Your task to perform on an android device: Do I have any events tomorrow? Image 0: 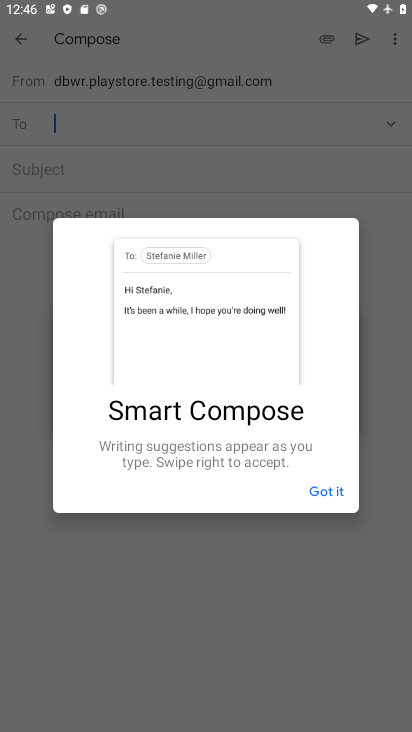
Step 0: press home button
Your task to perform on an android device: Do I have any events tomorrow? Image 1: 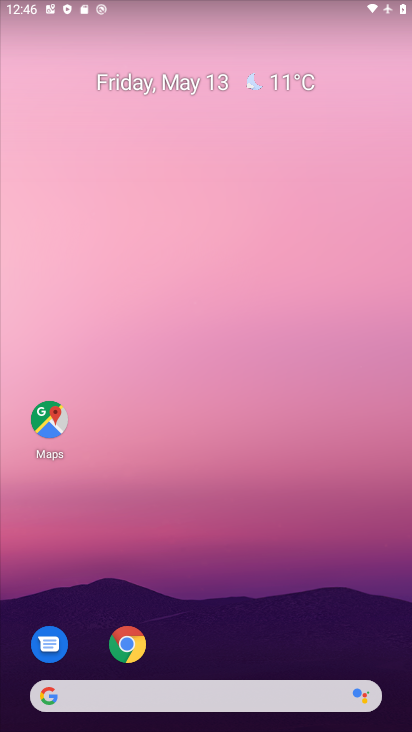
Step 1: drag from (214, 671) to (209, 256)
Your task to perform on an android device: Do I have any events tomorrow? Image 2: 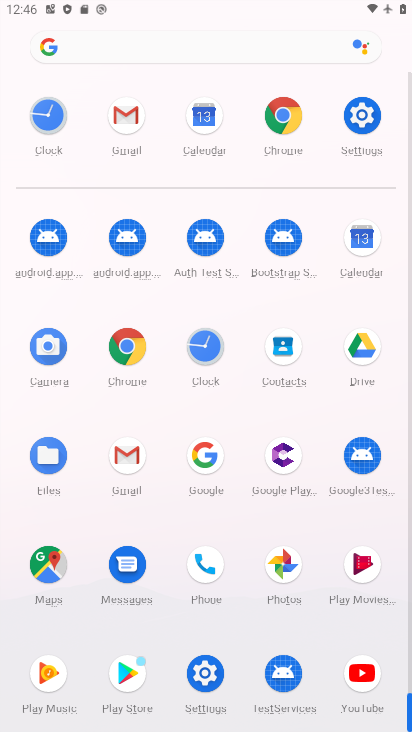
Step 2: click (364, 235)
Your task to perform on an android device: Do I have any events tomorrow? Image 3: 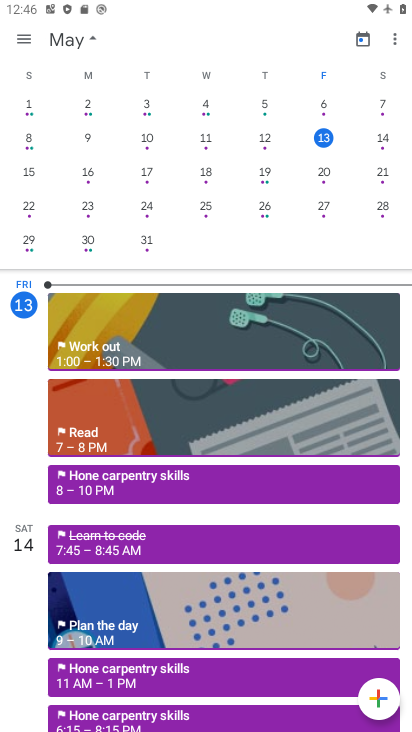
Step 3: click (22, 39)
Your task to perform on an android device: Do I have any events tomorrow? Image 4: 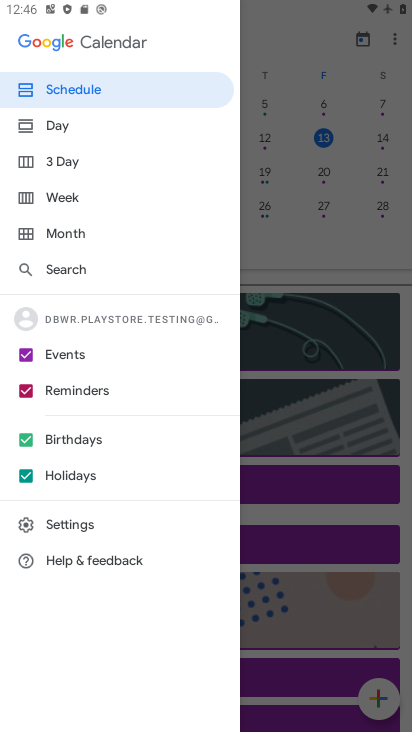
Step 4: click (31, 478)
Your task to perform on an android device: Do I have any events tomorrow? Image 5: 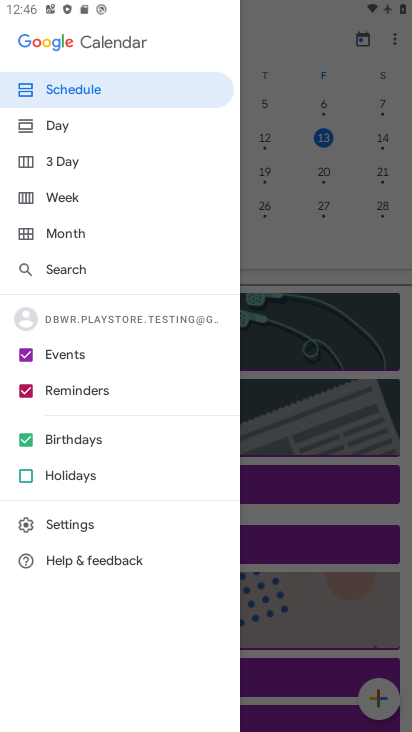
Step 5: click (31, 437)
Your task to perform on an android device: Do I have any events tomorrow? Image 6: 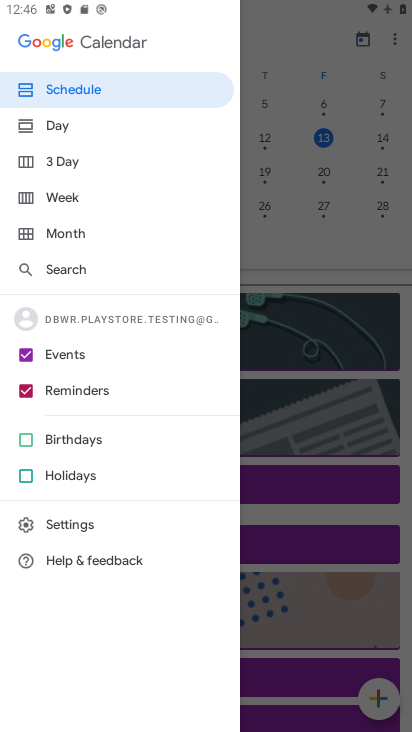
Step 6: click (26, 385)
Your task to perform on an android device: Do I have any events tomorrow? Image 7: 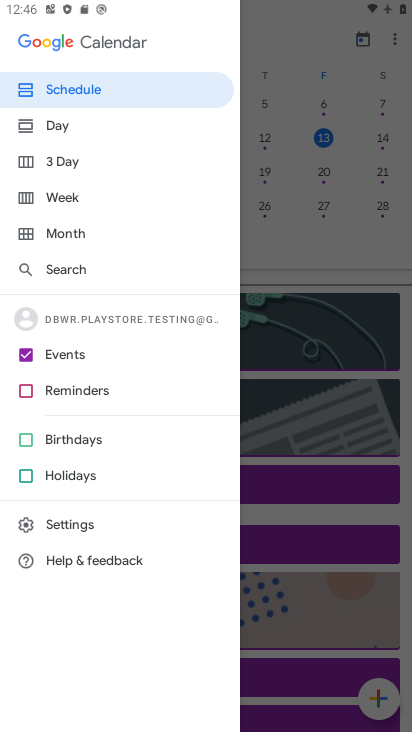
Step 7: click (325, 137)
Your task to perform on an android device: Do I have any events tomorrow? Image 8: 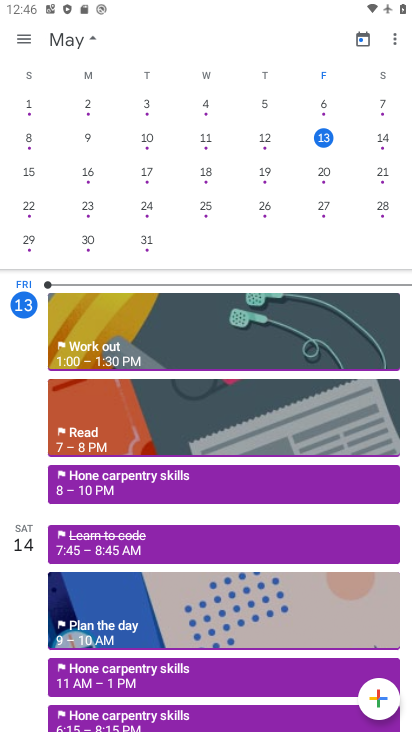
Step 8: click (381, 133)
Your task to perform on an android device: Do I have any events tomorrow? Image 9: 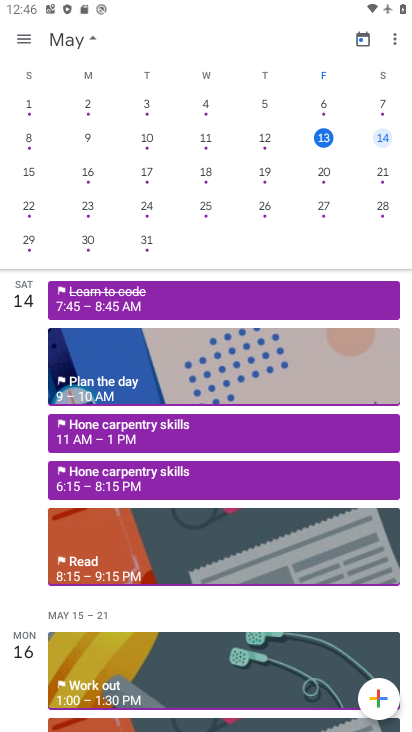
Step 9: click (382, 135)
Your task to perform on an android device: Do I have any events tomorrow? Image 10: 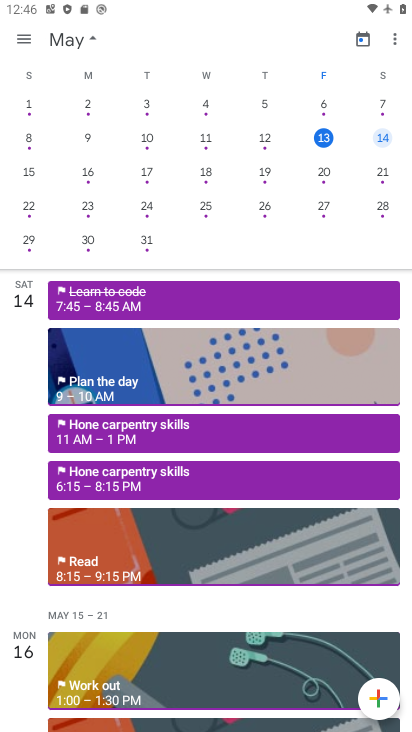
Step 10: task complete